Your task to perform on an android device: Go to battery settings Image 0: 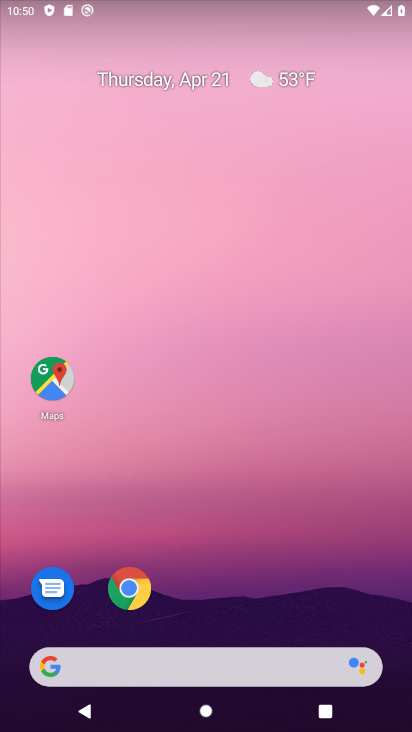
Step 0: drag from (276, 581) to (200, 89)
Your task to perform on an android device: Go to battery settings Image 1: 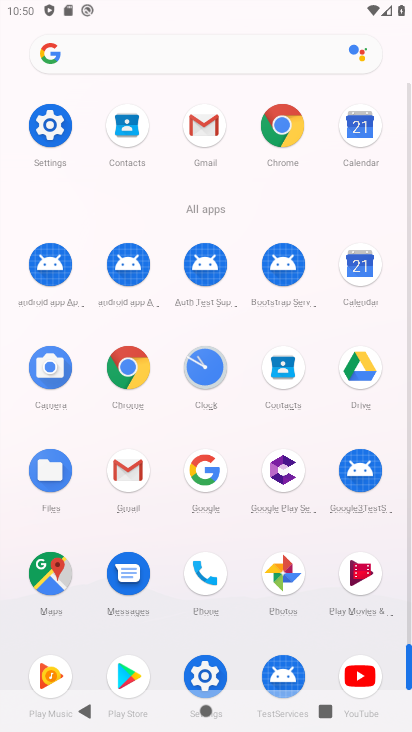
Step 1: click (37, 123)
Your task to perform on an android device: Go to battery settings Image 2: 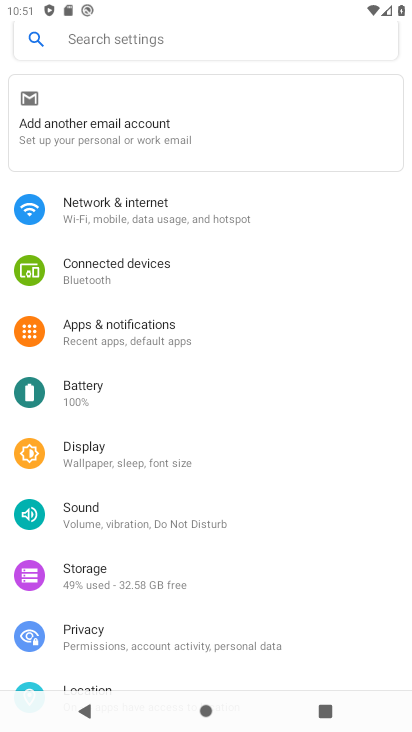
Step 2: click (121, 403)
Your task to perform on an android device: Go to battery settings Image 3: 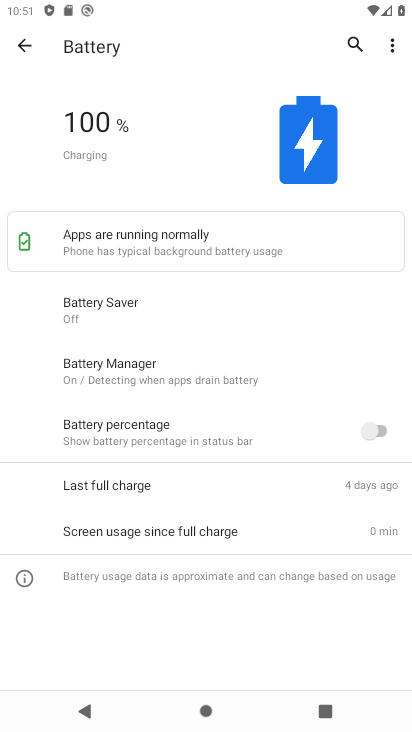
Step 3: task complete